Your task to perform on an android device: toggle airplane mode Image 0: 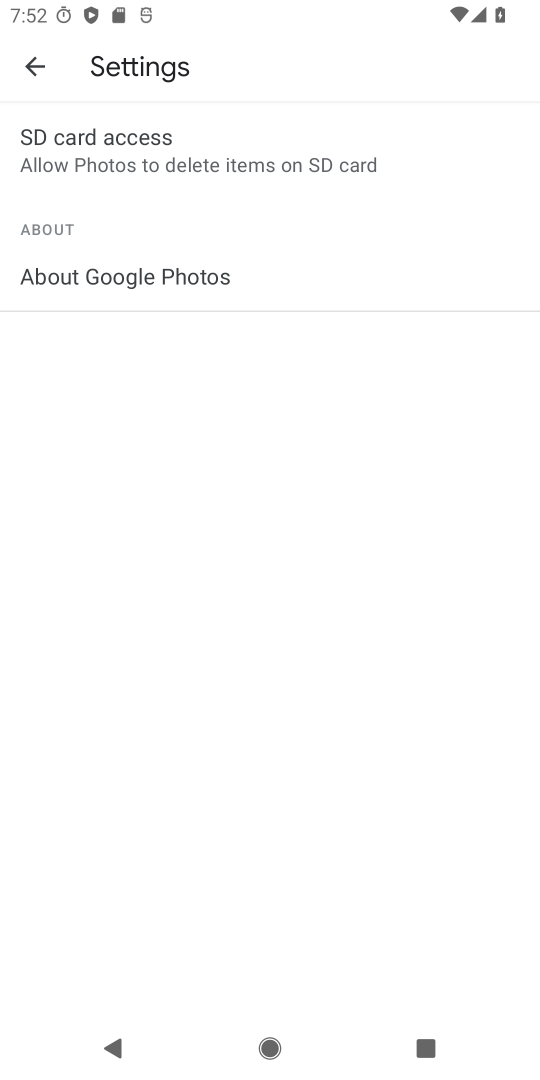
Step 0: press home button
Your task to perform on an android device: toggle airplane mode Image 1: 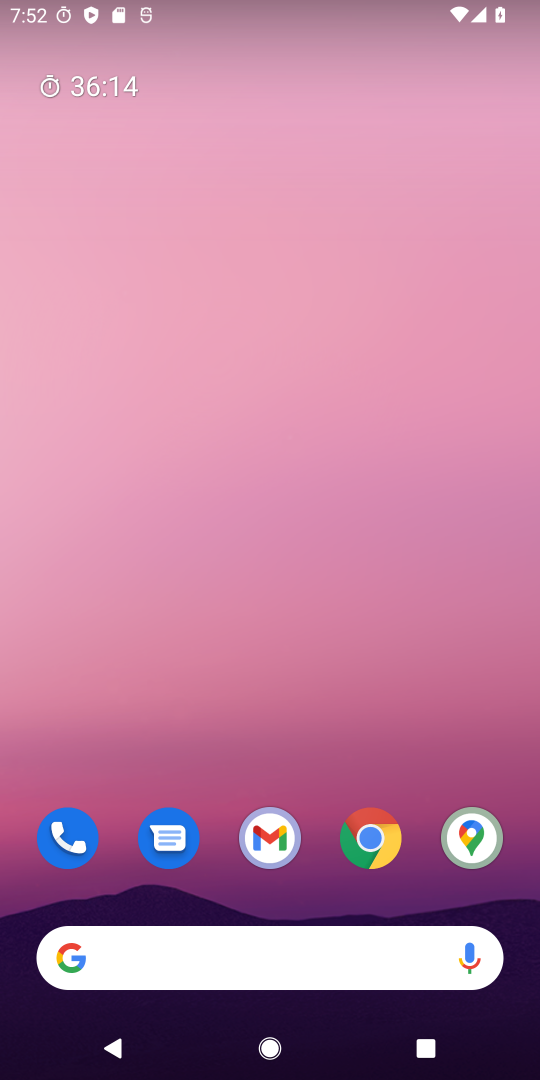
Step 1: drag from (434, 20) to (437, 294)
Your task to perform on an android device: toggle airplane mode Image 2: 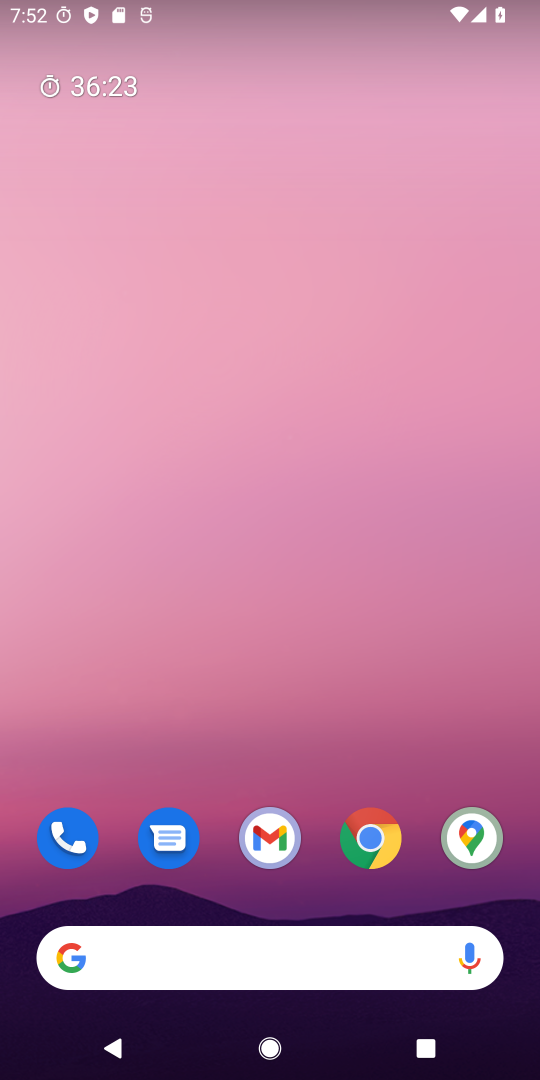
Step 2: drag from (468, 912) to (416, 304)
Your task to perform on an android device: toggle airplane mode Image 3: 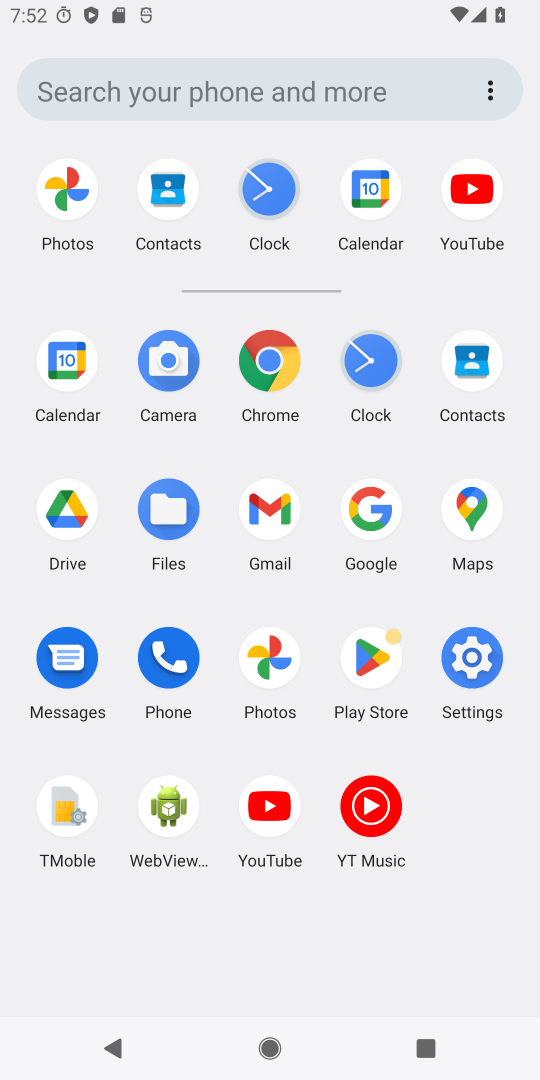
Step 3: drag from (502, 8) to (526, 494)
Your task to perform on an android device: toggle airplane mode Image 4: 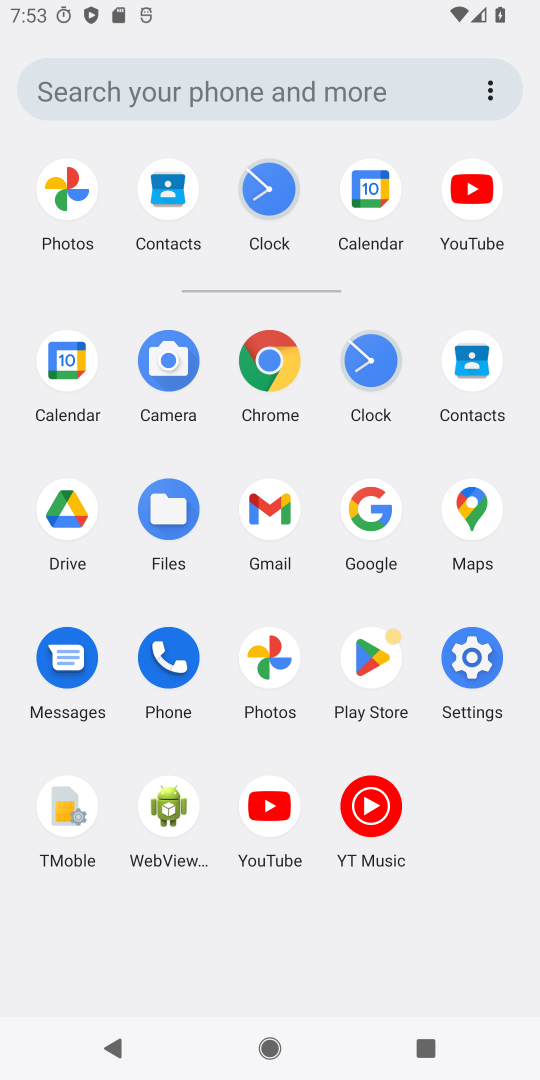
Step 4: drag from (468, 0) to (477, 1079)
Your task to perform on an android device: toggle airplane mode Image 5: 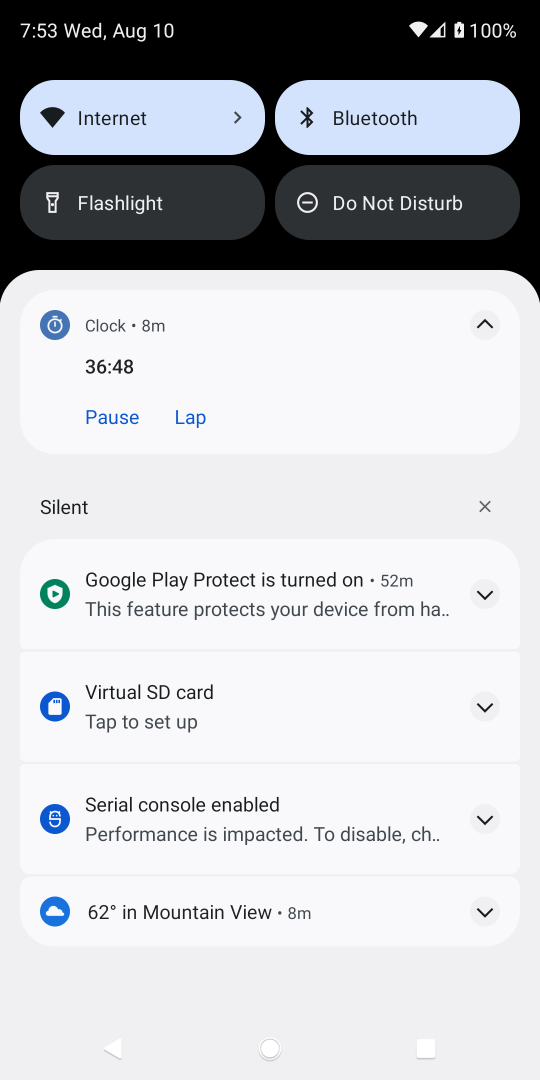
Step 5: drag from (273, 254) to (248, 1006)
Your task to perform on an android device: toggle airplane mode Image 6: 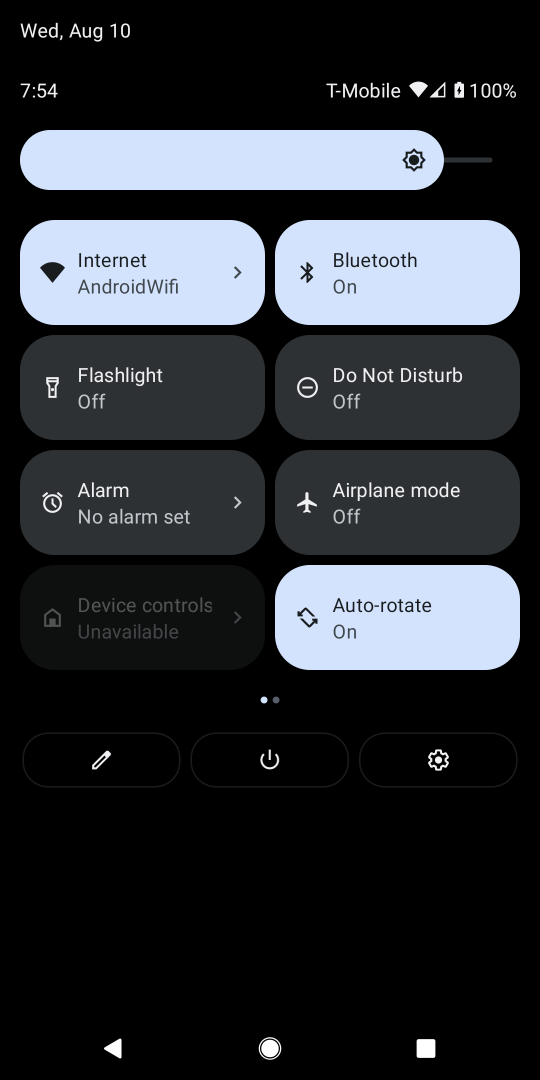
Step 6: click (394, 519)
Your task to perform on an android device: toggle airplane mode Image 7: 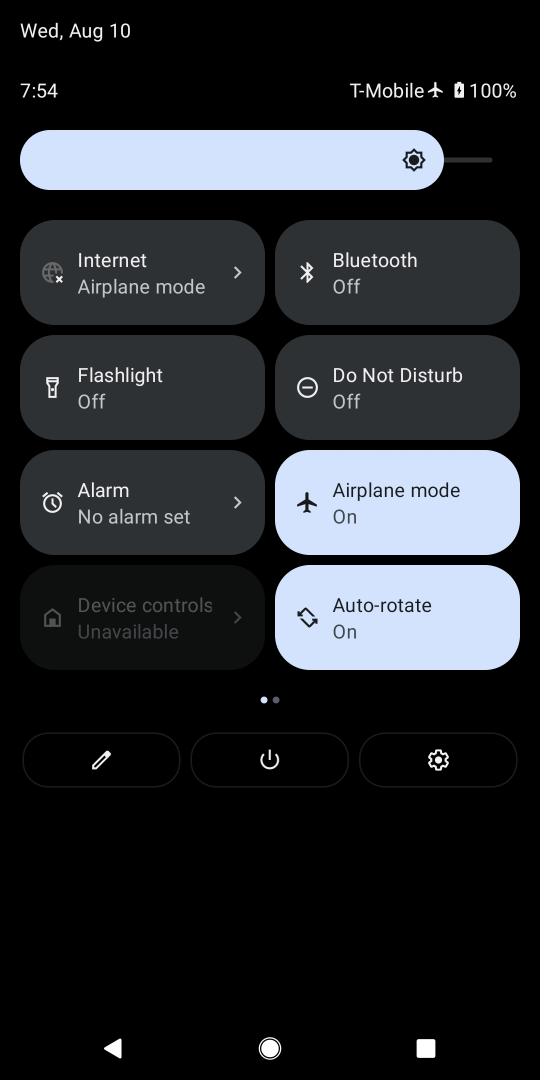
Step 7: task complete